Your task to perform on an android device: What's the latest video from Game Informer? Image 0: 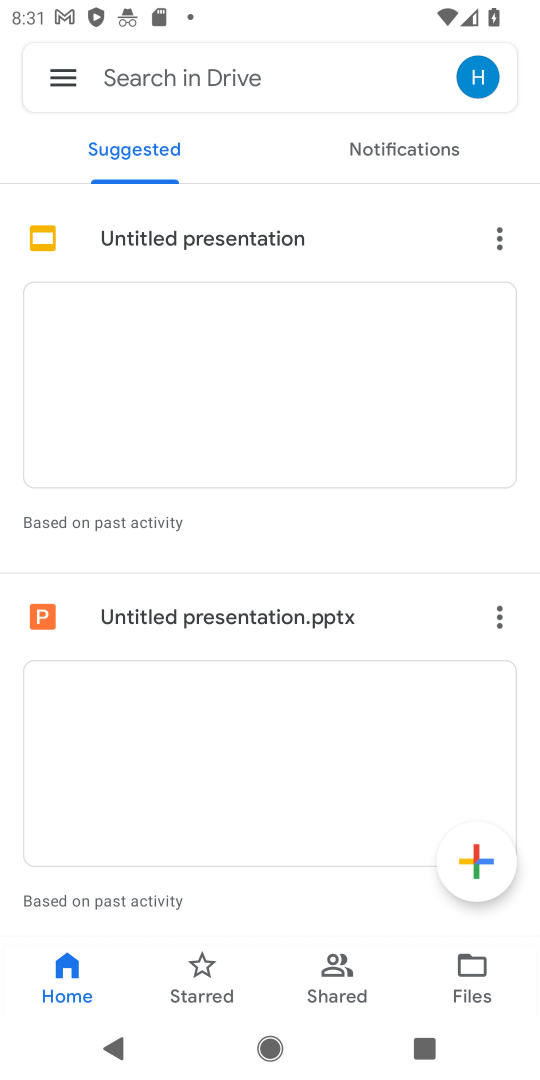
Step 0: press home button
Your task to perform on an android device: What's the latest video from Game Informer? Image 1: 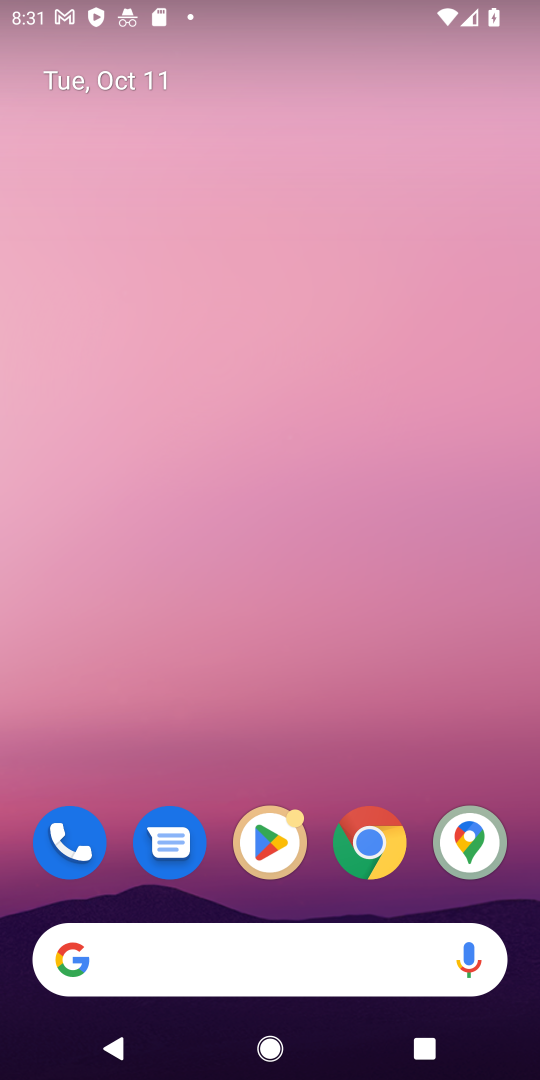
Step 1: drag from (230, 822) to (203, 185)
Your task to perform on an android device: What's the latest video from Game Informer? Image 2: 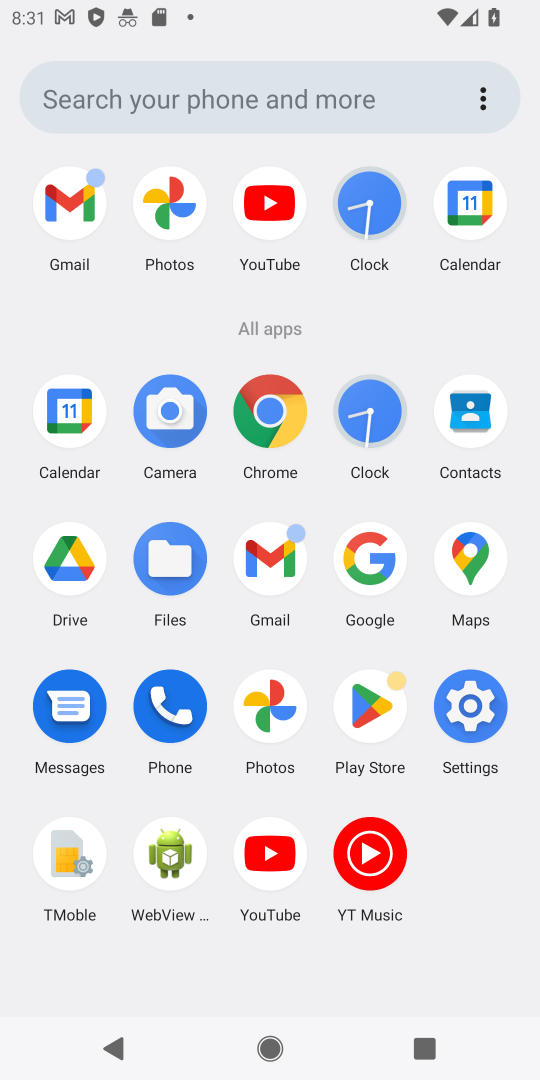
Step 2: click (265, 209)
Your task to perform on an android device: What's the latest video from Game Informer? Image 3: 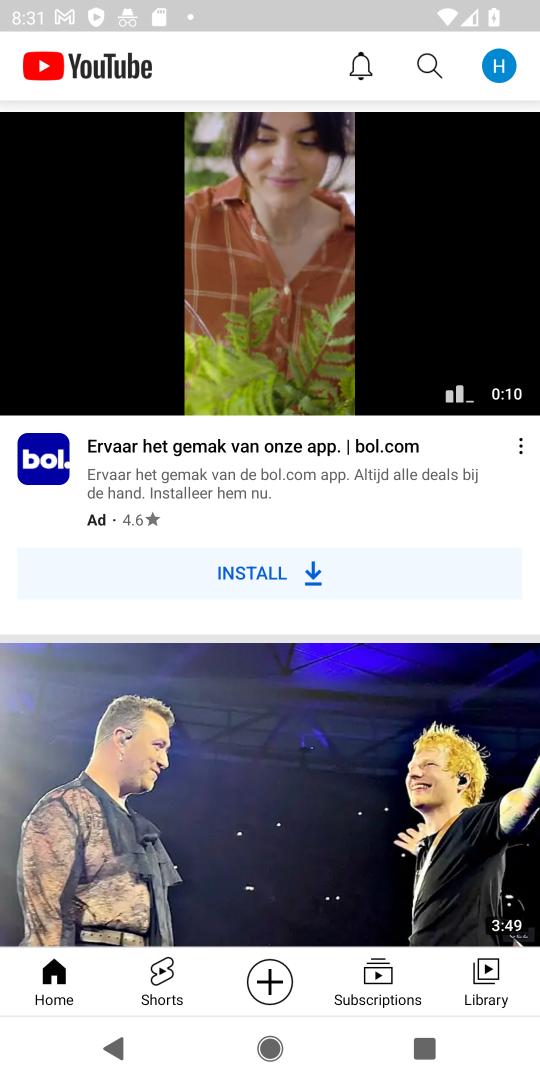
Step 3: click (427, 73)
Your task to perform on an android device: What's the latest video from Game Informer? Image 4: 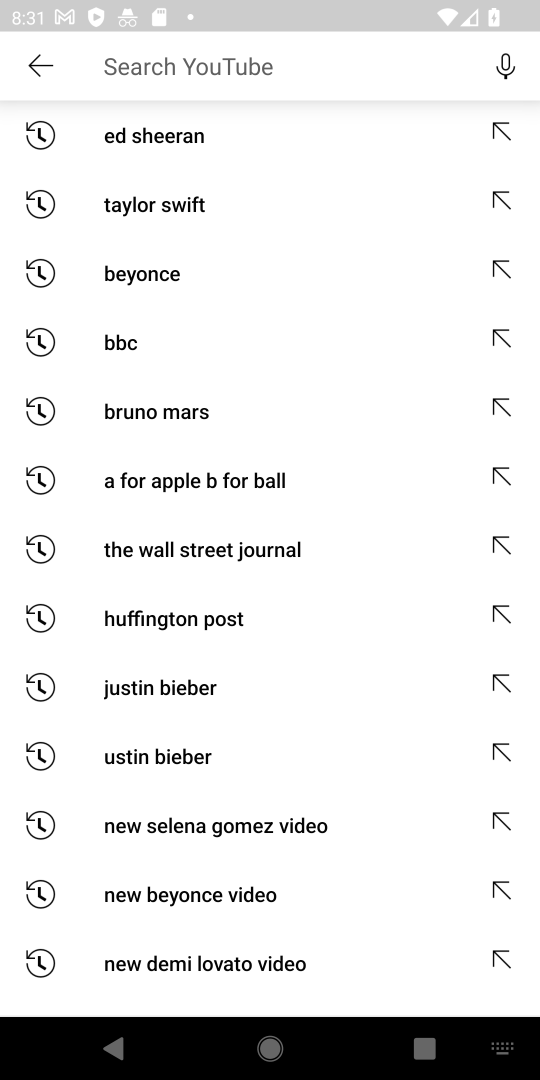
Step 4: type "What's the latest video from Game Informer?"
Your task to perform on an android device: What's the latest video from Game Informer? Image 5: 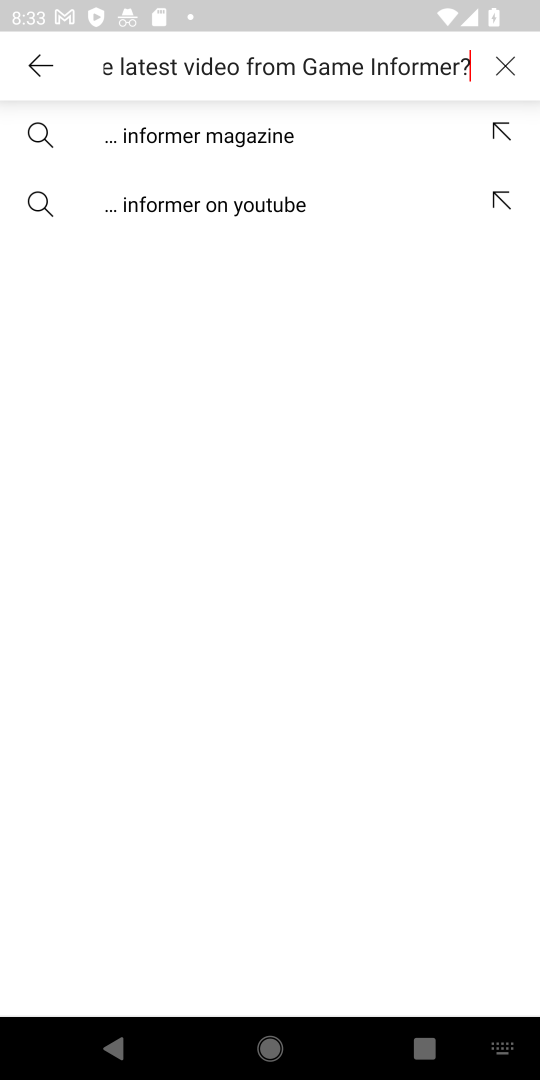
Step 5: click (246, 203)
Your task to perform on an android device: What's the latest video from Game Informer? Image 6: 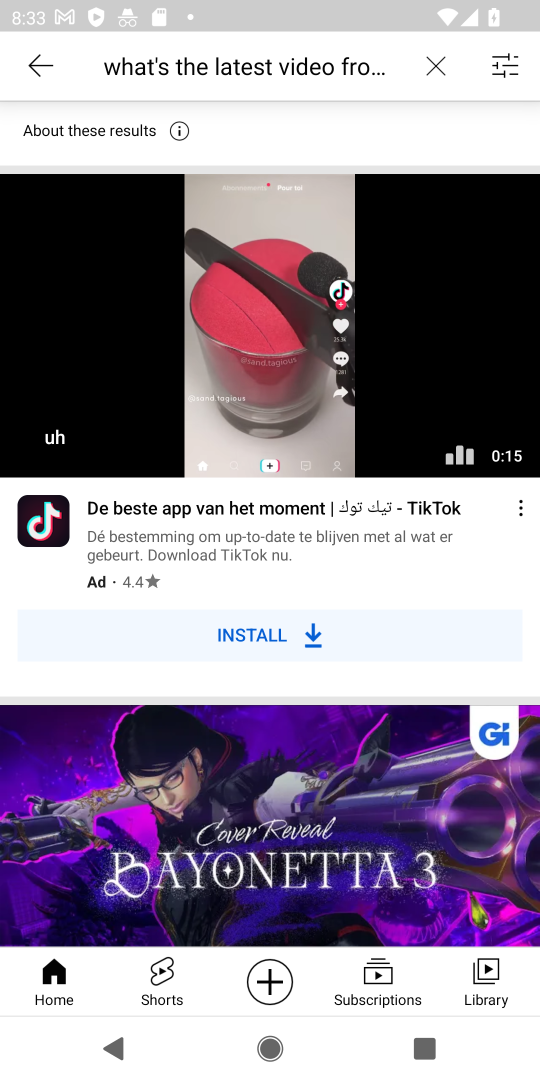
Step 6: click (419, 275)
Your task to perform on an android device: What's the latest video from Game Informer? Image 7: 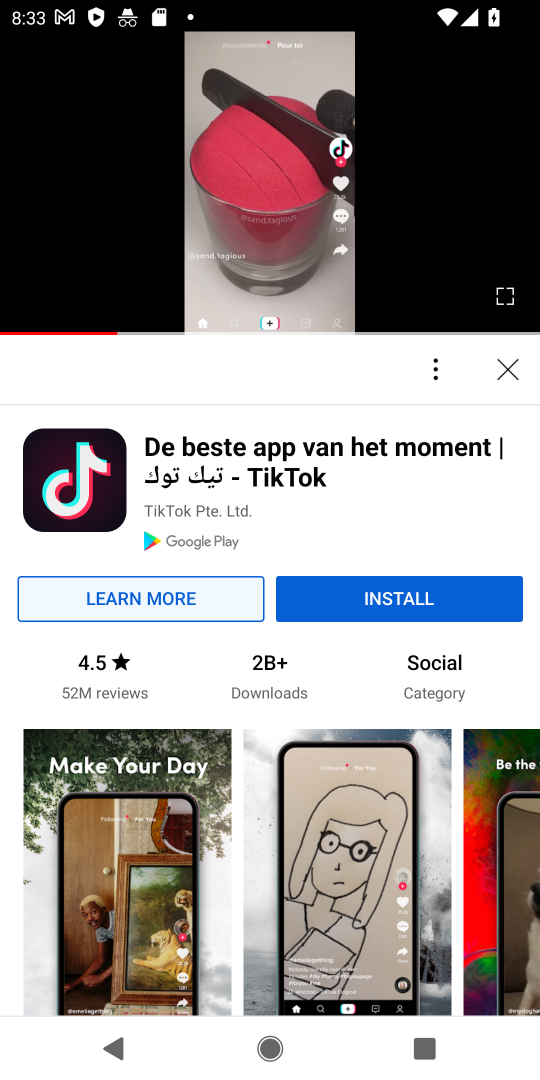
Step 7: click (517, 360)
Your task to perform on an android device: What's the latest video from Game Informer? Image 8: 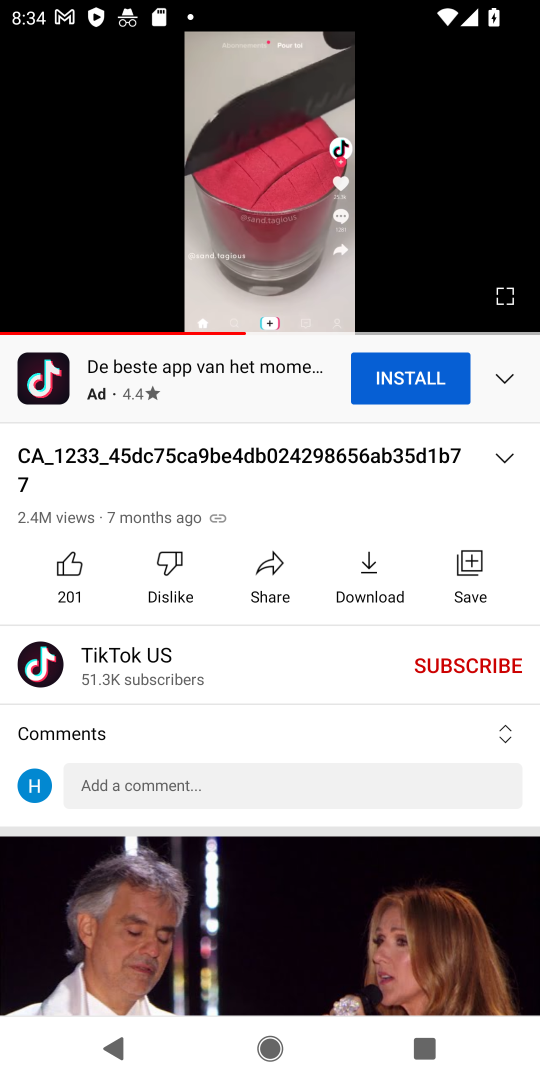
Step 8: task complete